Your task to perform on an android device: Open the calendar app, open the side menu, and click the "Day" option Image 0: 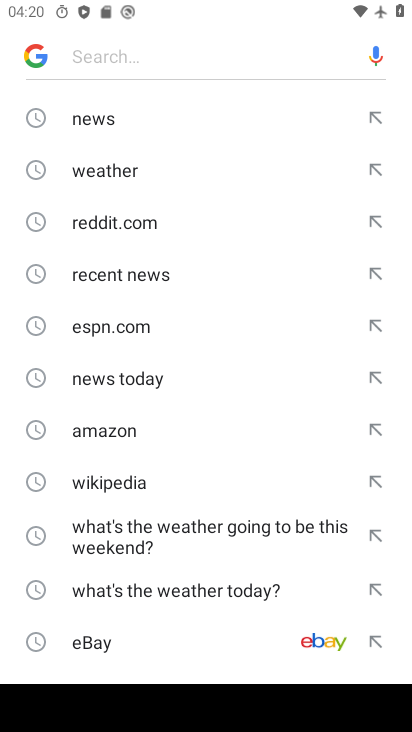
Step 0: press home button
Your task to perform on an android device: Open the calendar app, open the side menu, and click the "Day" option Image 1: 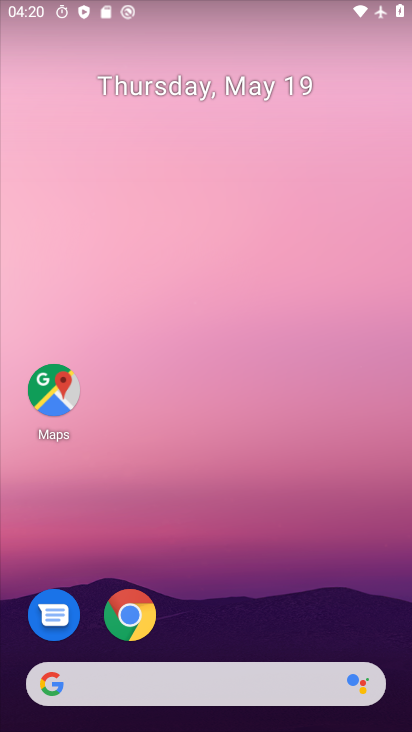
Step 1: drag from (231, 620) to (284, 35)
Your task to perform on an android device: Open the calendar app, open the side menu, and click the "Day" option Image 2: 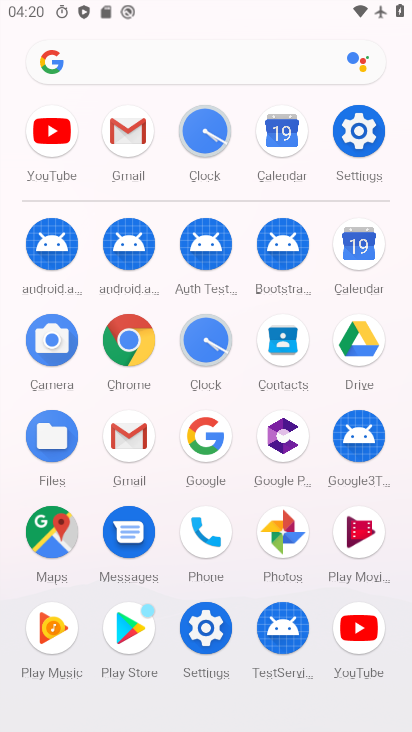
Step 2: click (275, 134)
Your task to perform on an android device: Open the calendar app, open the side menu, and click the "Day" option Image 3: 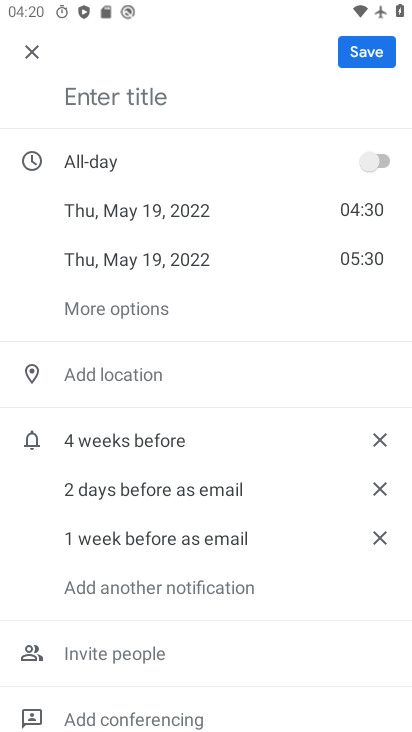
Step 3: click (35, 53)
Your task to perform on an android device: Open the calendar app, open the side menu, and click the "Day" option Image 4: 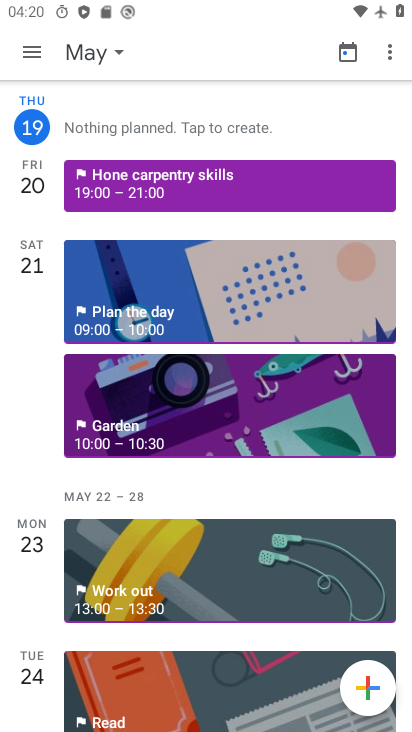
Step 4: click (32, 55)
Your task to perform on an android device: Open the calendar app, open the side menu, and click the "Day" option Image 5: 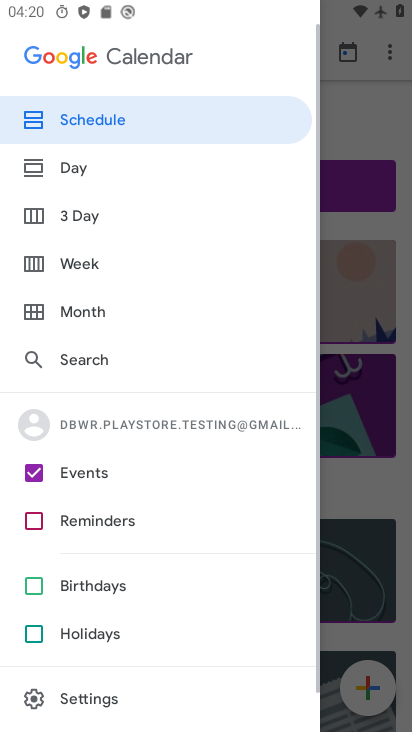
Step 5: click (58, 173)
Your task to perform on an android device: Open the calendar app, open the side menu, and click the "Day" option Image 6: 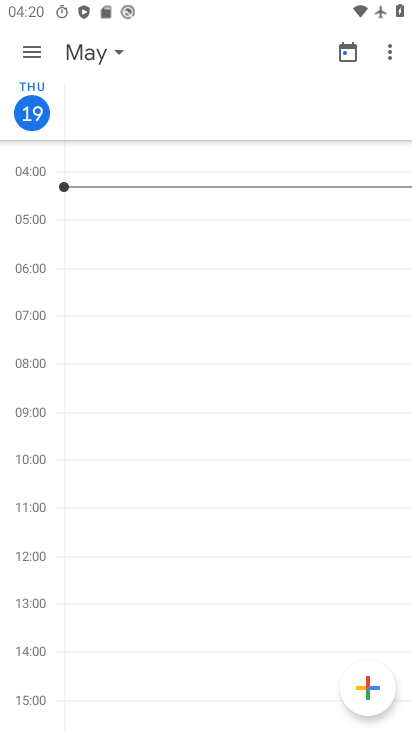
Step 6: task complete